Your task to perform on an android device: Show the shopping cart on walmart. Image 0: 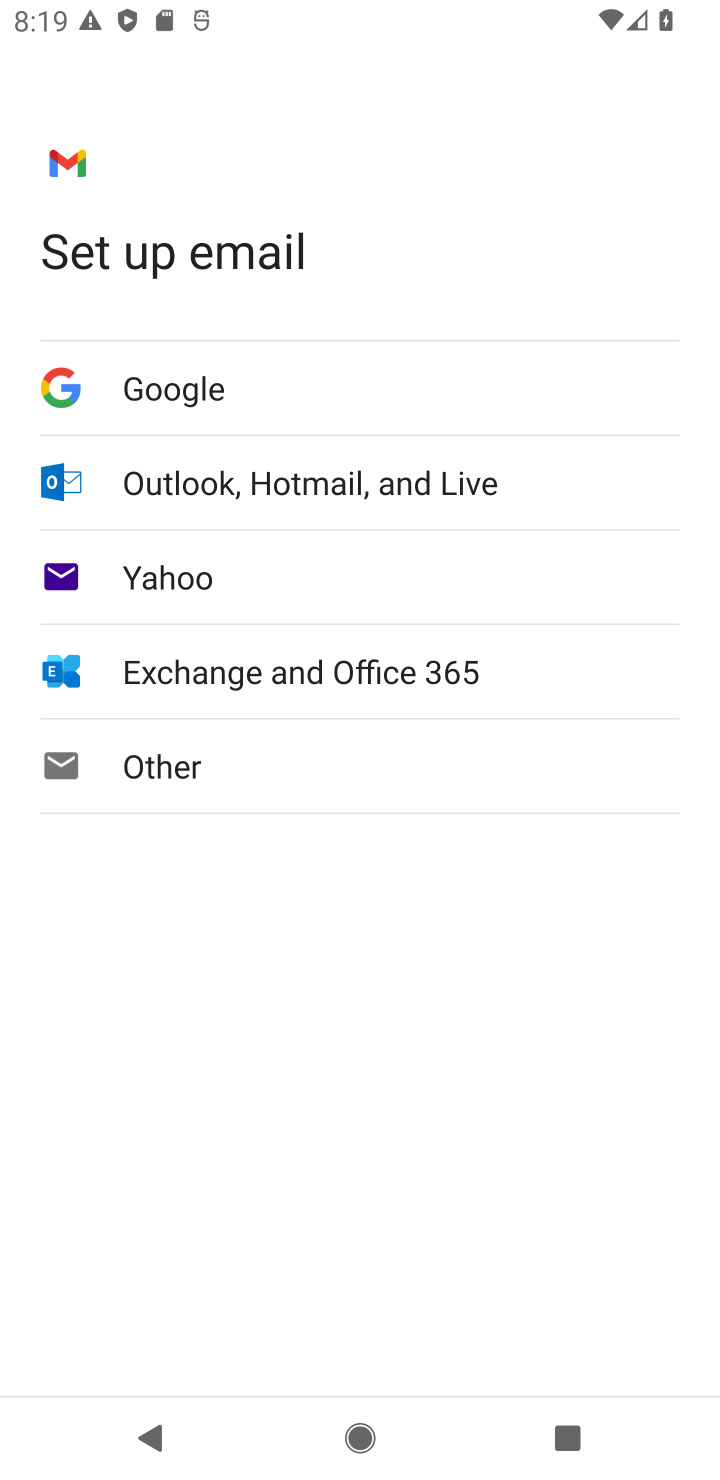
Step 0: press home button
Your task to perform on an android device: Show the shopping cart on walmart. Image 1: 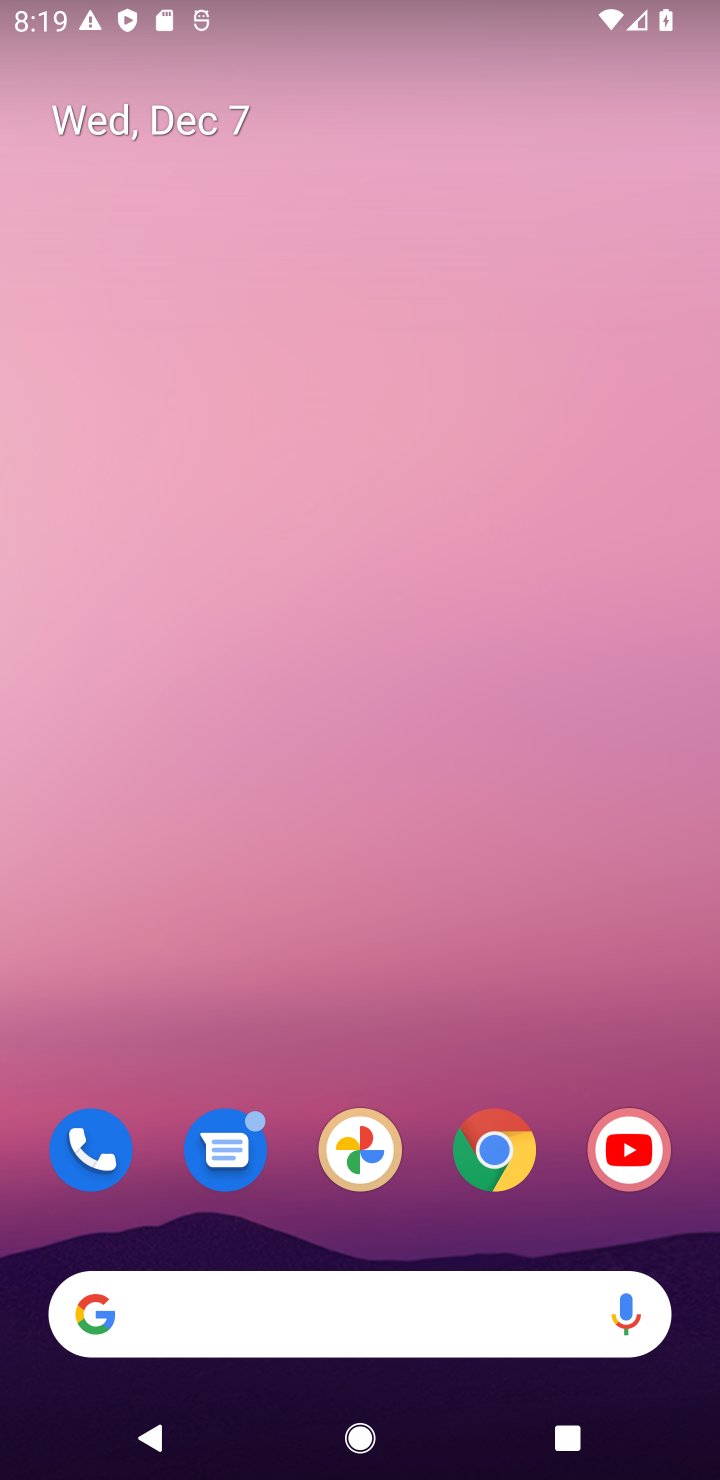
Step 1: click (481, 1152)
Your task to perform on an android device: Show the shopping cart on walmart. Image 2: 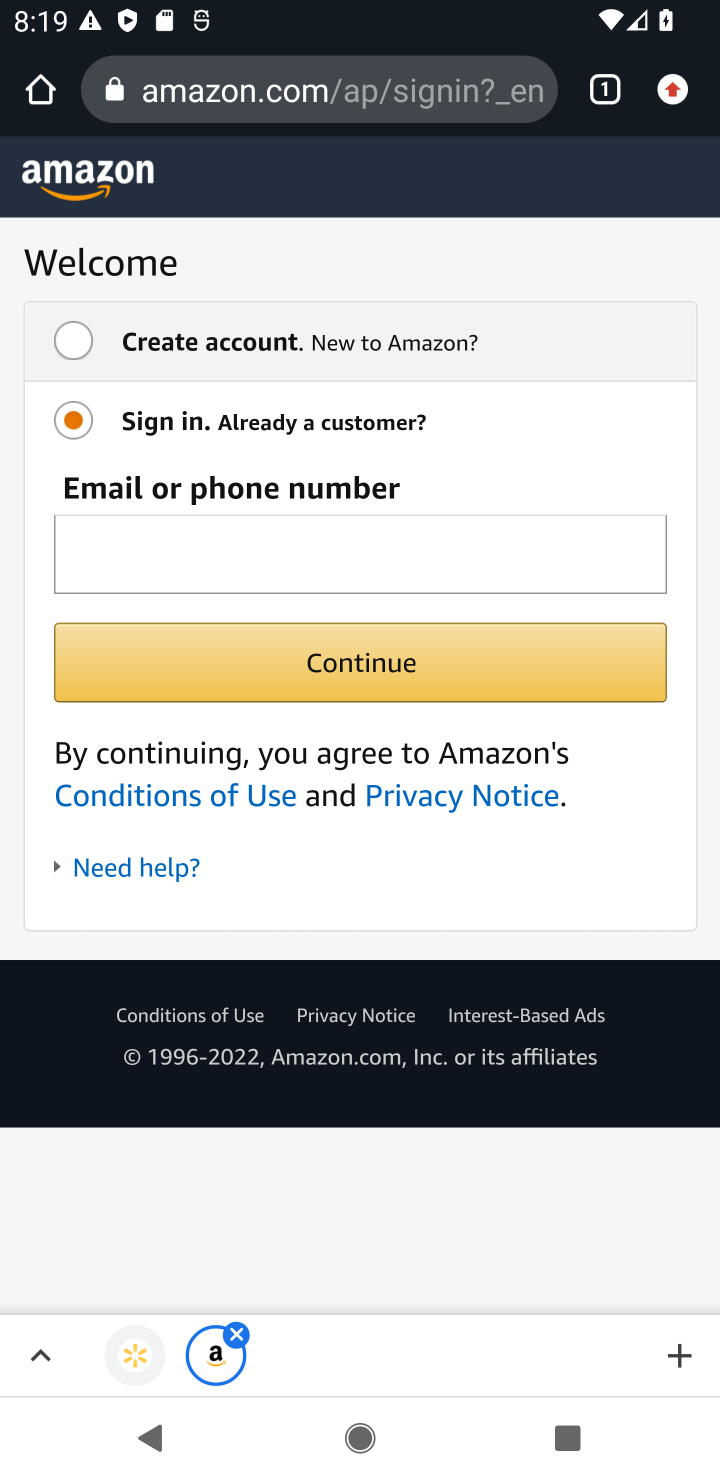
Step 2: click (363, 94)
Your task to perform on an android device: Show the shopping cart on walmart. Image 3: 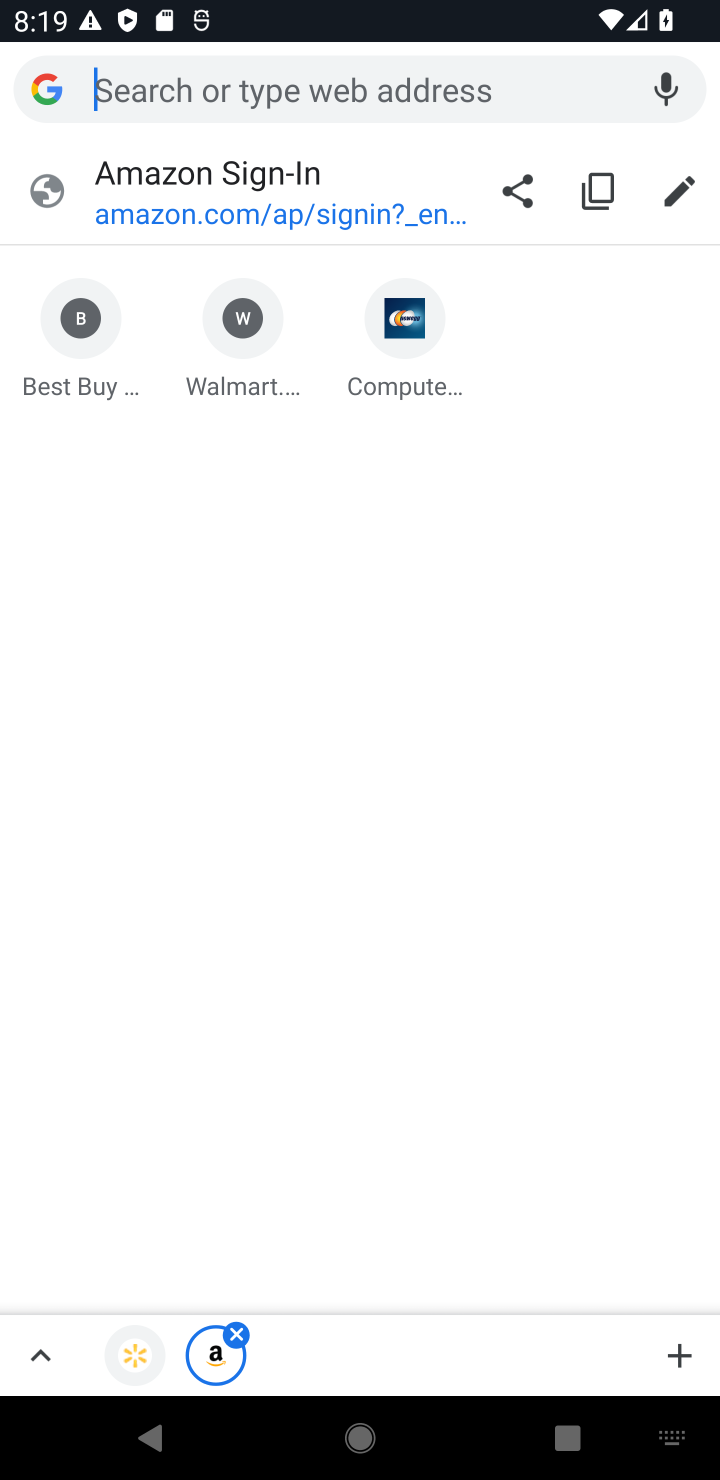
Step 3: click (246, 347)
Your task to perform on an android device: Show the shopping cart on walmart. Image 4: 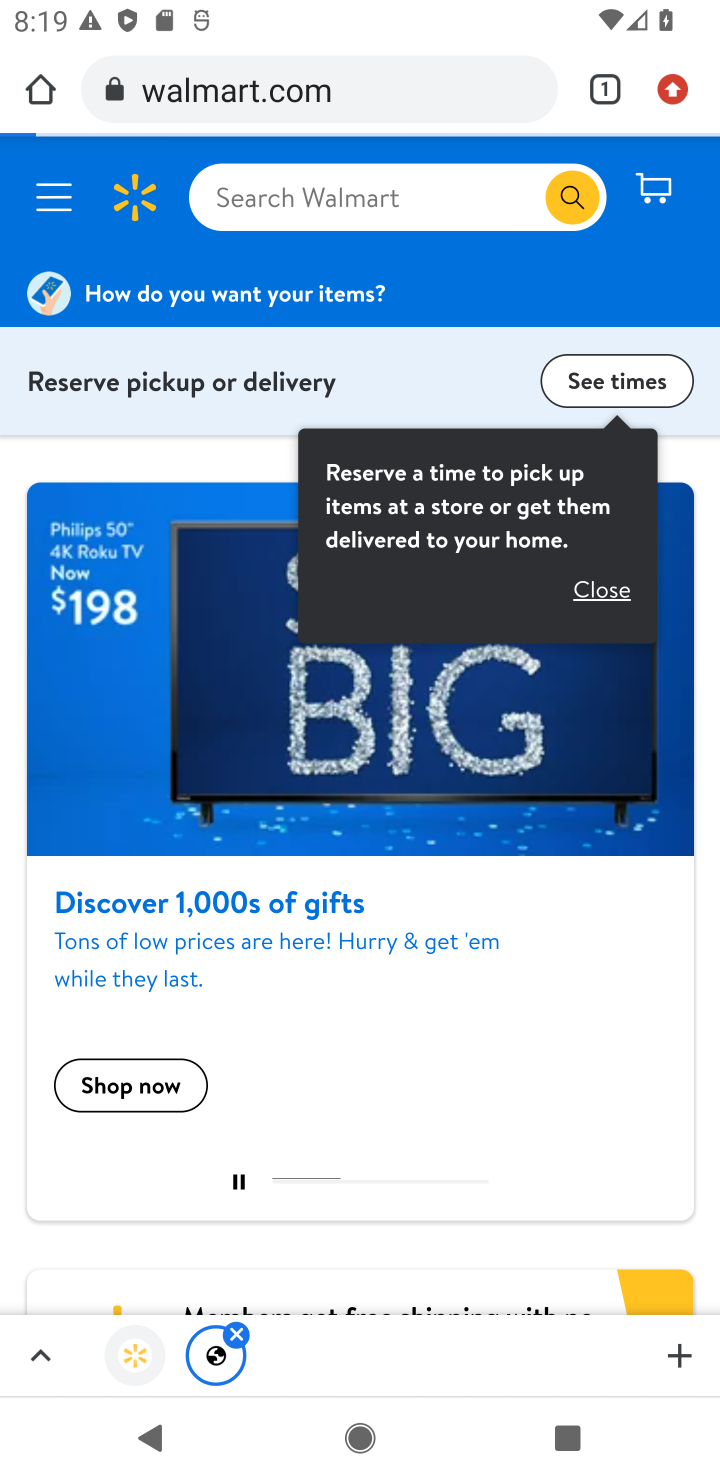
Step 4: click (651, 197)
Your task to perform on an android device: Show the shopping cart on walmart. Image 5: 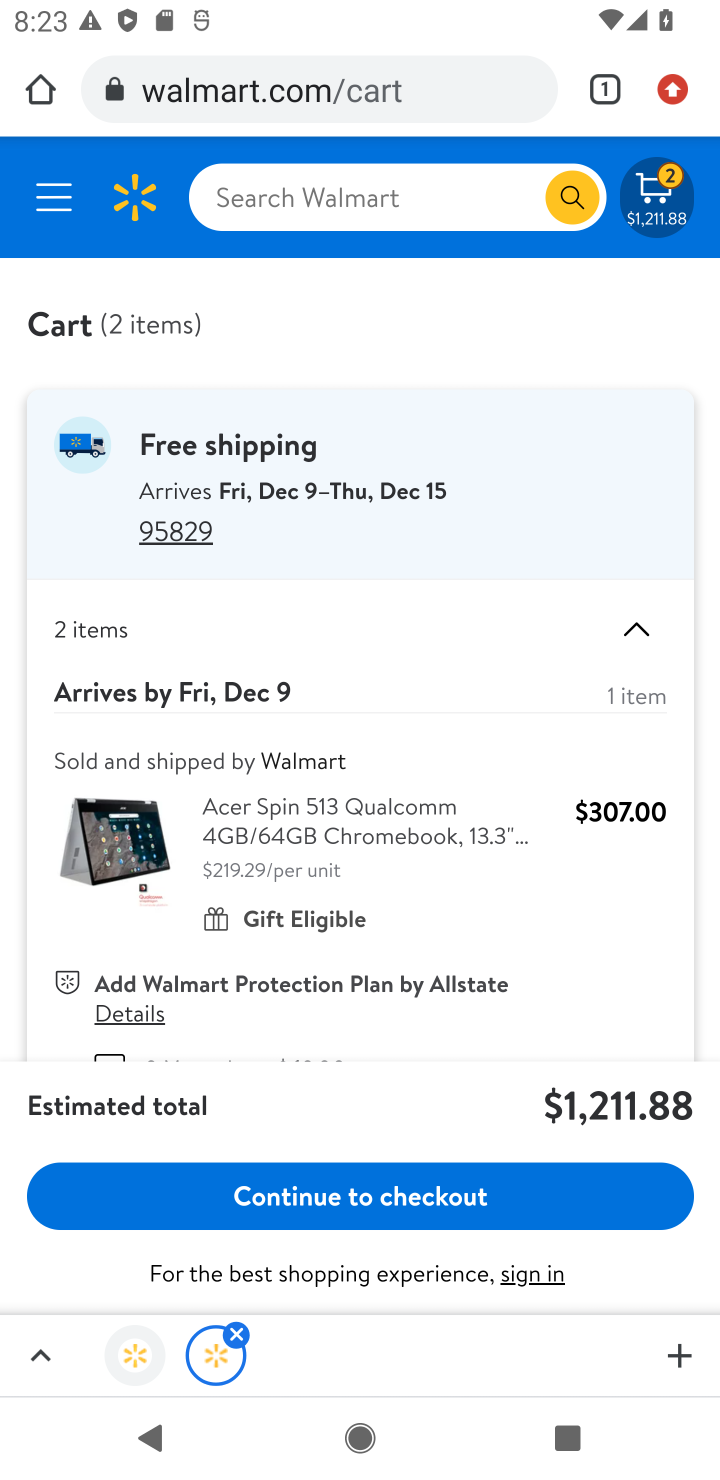
Step 5: task complete